Your task to perform on an android device: Go to Maps Image 0: 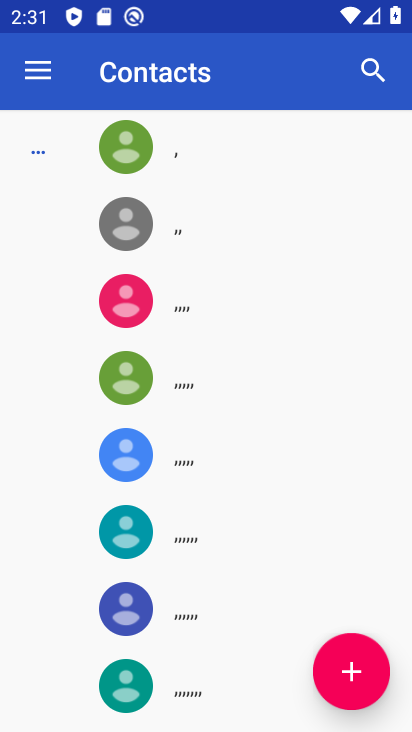
Step 0: press home button
Your task to perform on an android device: Go to Maps Image 1: 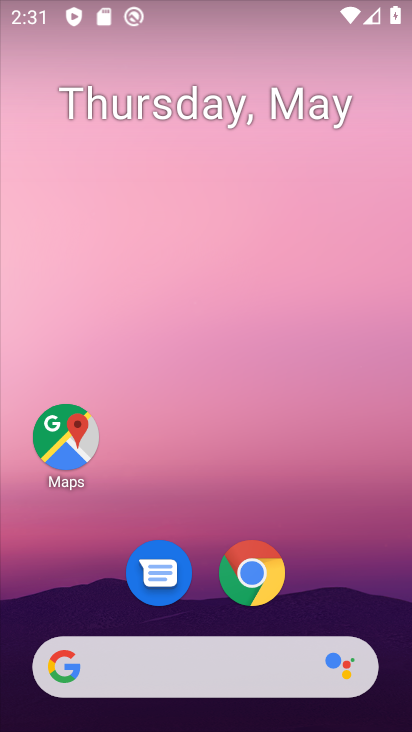
Step 1: click (82, 450)
Your task to perform on an android device: Go to Maps Image 2: 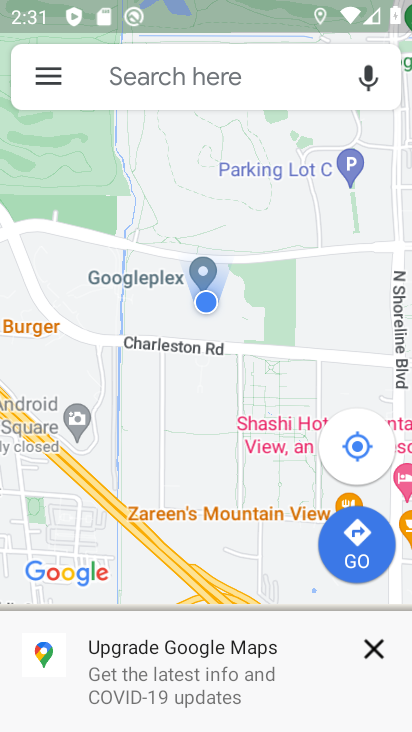
Step 2: drag from (153, 556) to (170, 281)
Your task to perform on an android device: Go to Maps Image 3: 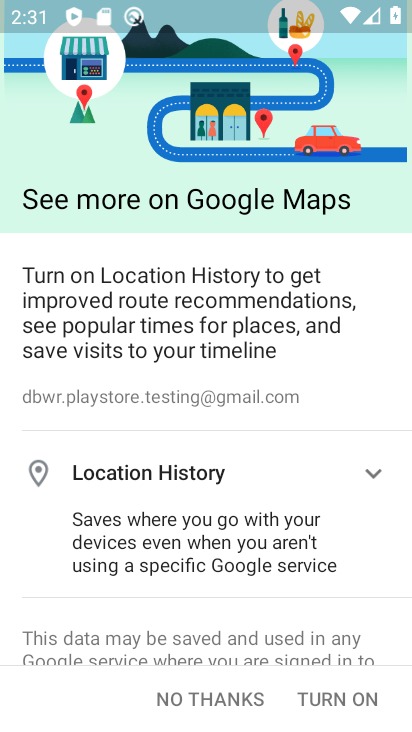
Step 3: click (365, 691)
Your task to perform on an android device: Go to Maps Image 4: 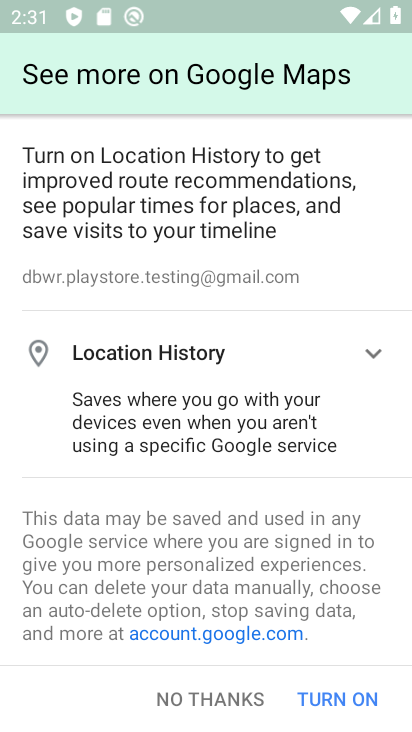
Step 4: click (313, 693)
Your task to perform on an android device: Go to Maps Image 5: 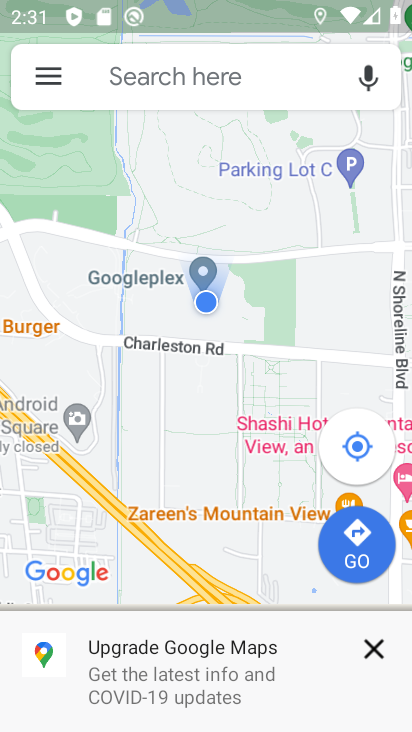
Step 5: task complete